Your task to perform on an android device: Show the shopping cart on walmart. Search for macbook air on walmart, select the first entry, and add it to the cart. Image 0: 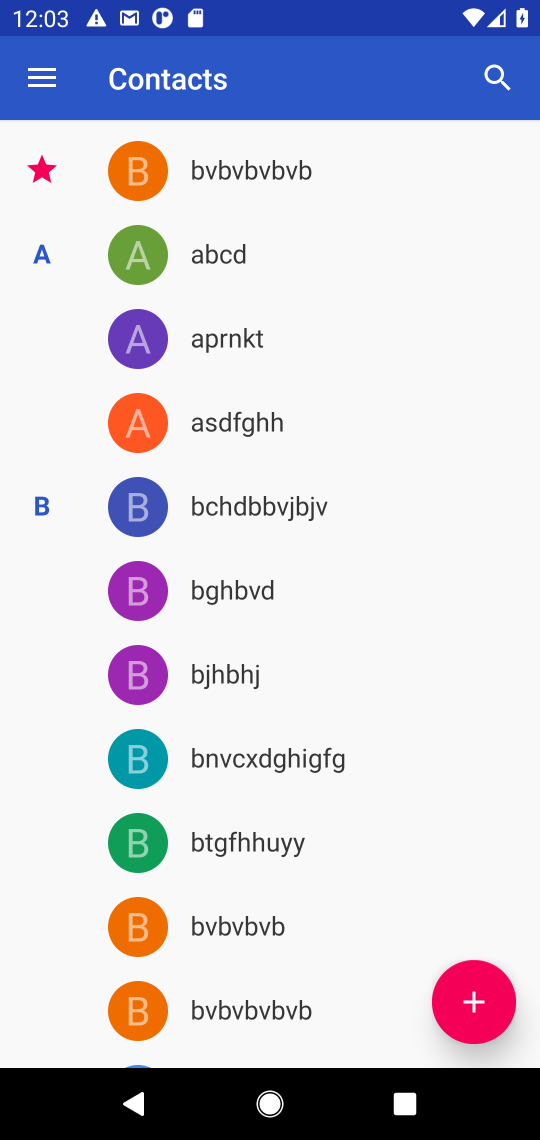
Step 0: press home button
Your task to perform on an android device: Show the shopping cart on walmart. Search for macbook air on walmart, select the first entry, and add it to the cart. Image 1: 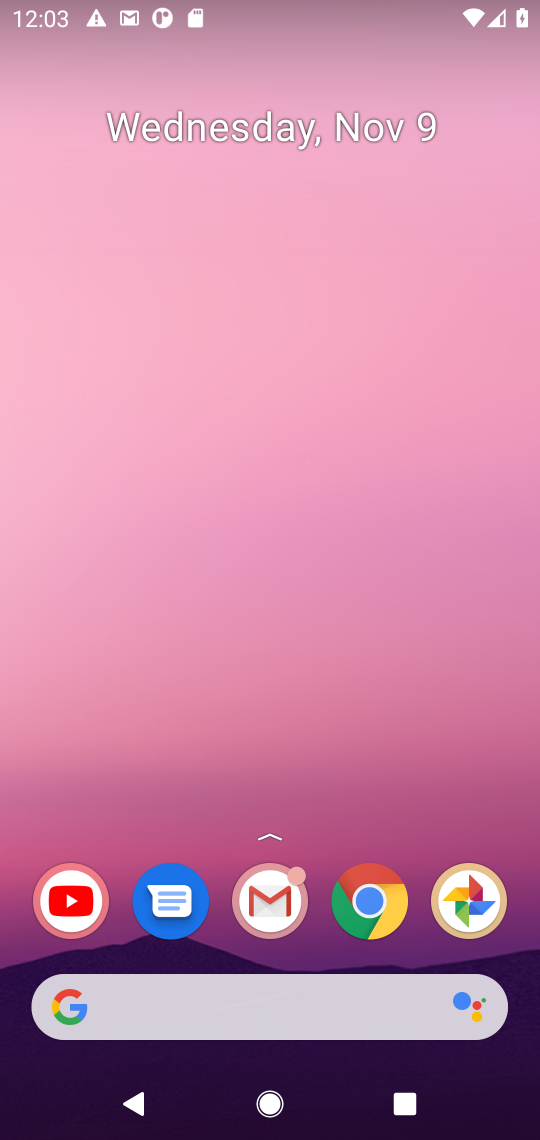
Step 1: click (376, 899)
Your task to perform on an android device: Show the shopping cart on walmart. Search for macbook air on walmart, select the first entry, and add it to the cart. Image 2: 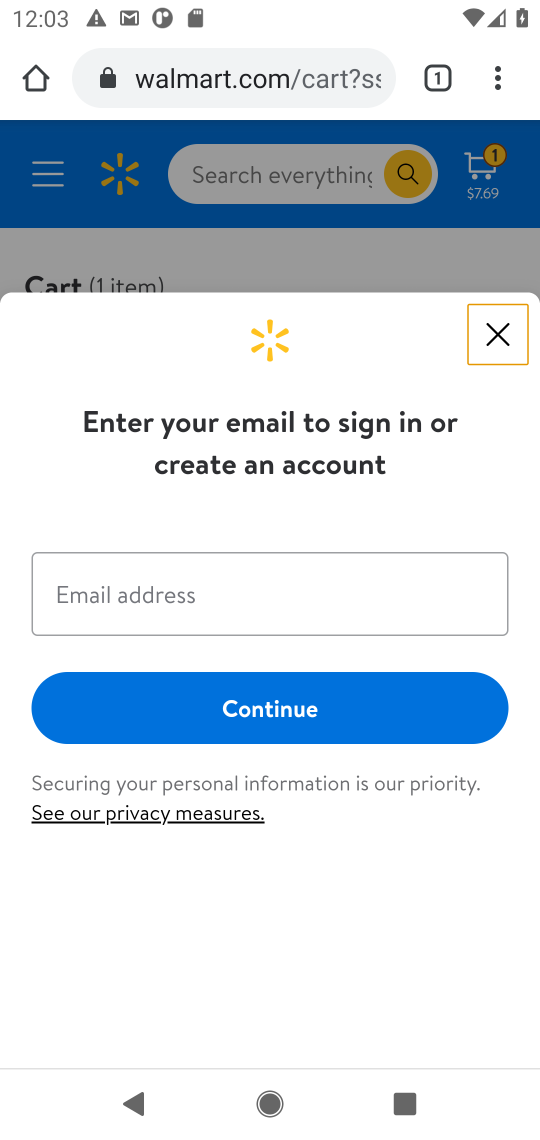
Step 2: click (491, 329)
Your task to perform on an android device: Show the shopping cart on walmart. Search for macbook air on walmart, select the first entry, and add it to the cart. Image 3: 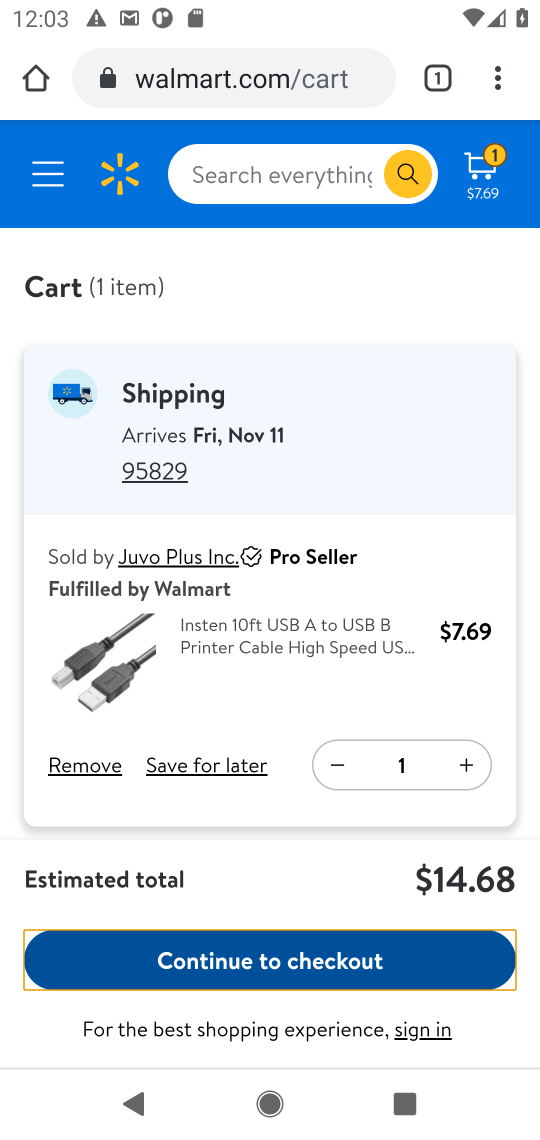
Step 3: click (480, 176)
Your task to perform on an android device: Show the shopping cart on walmart. Search for macbook air on walmart, select the first entry, and add it to the cart. Image 4: 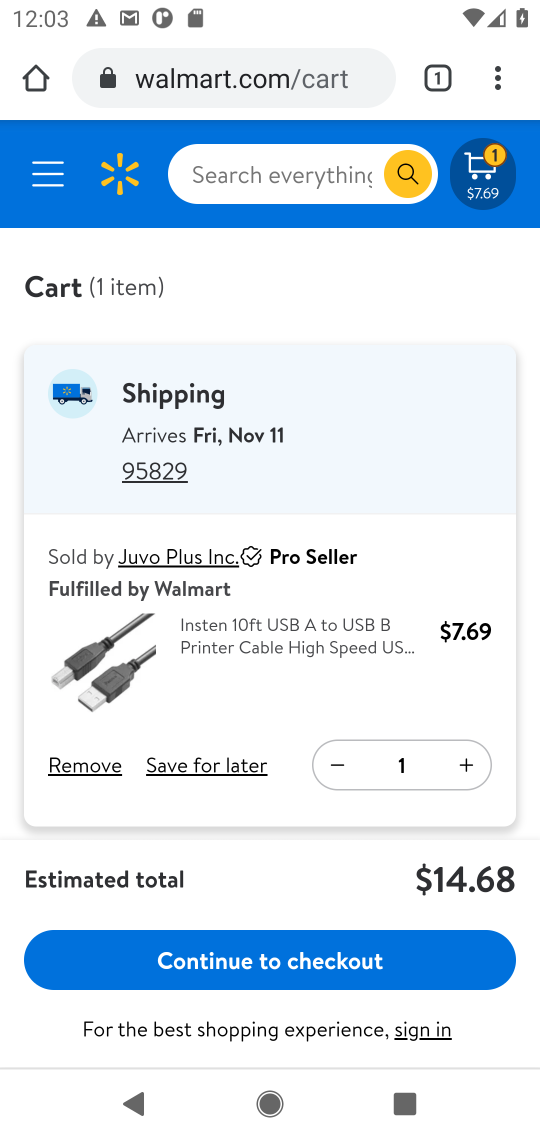
Step 4: click (271, 178)
Your task to perform on an android device: Show the shopping cart on walmart. Search for macbook air on walmart, select the first entry, and add it to the cart. Image 5: 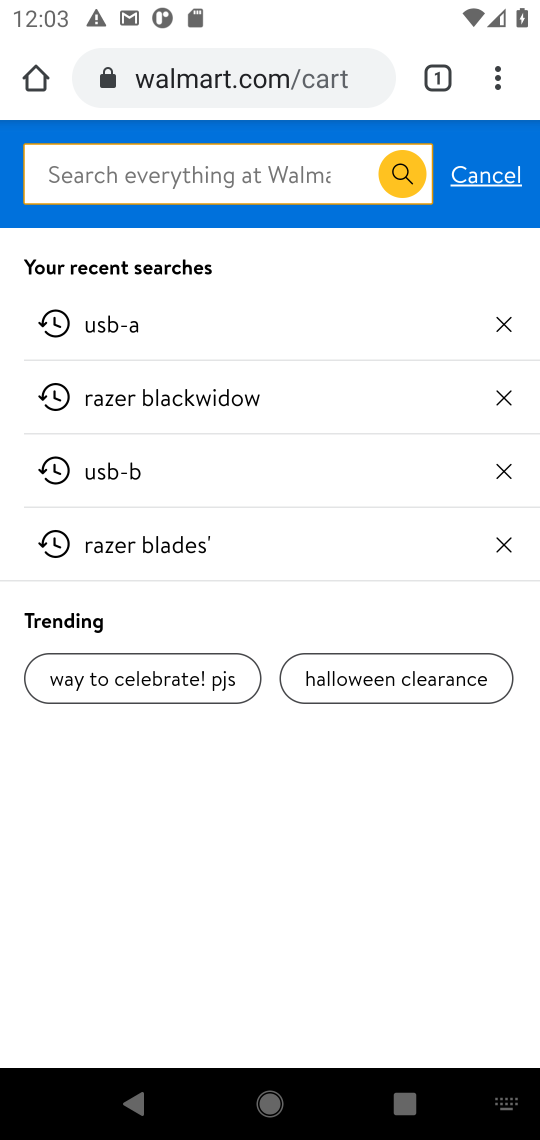
Step 5: type "macbook air"
Your task to perform on an android device: Show the shopping cart on walmart. Search for macbook air on walmart, select the first entry, and add it to the cart. Image 6: 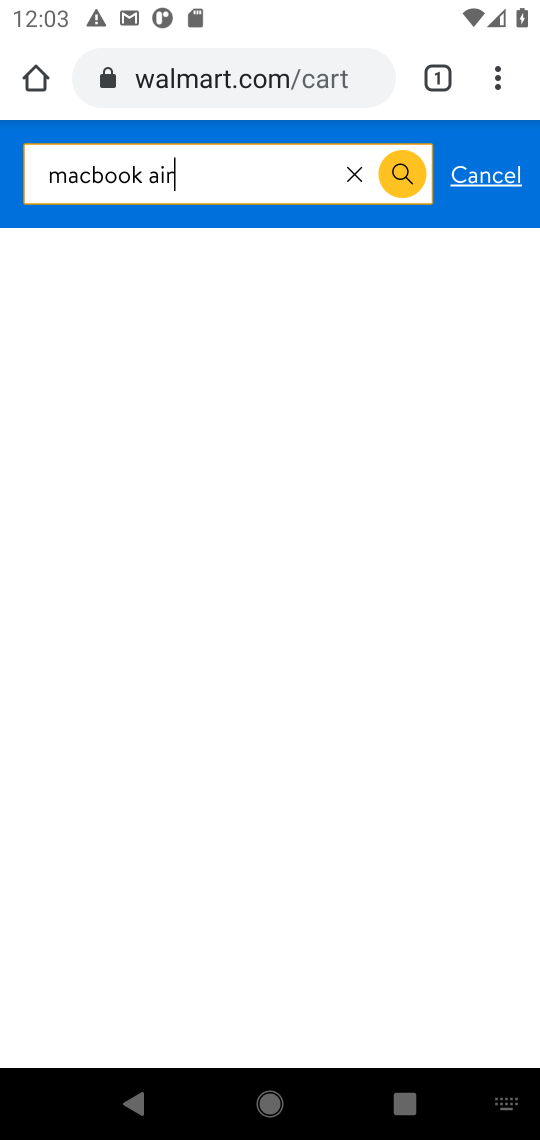
Step 6: press enter
Your task to perform on an android device: Show the shopping cart on walmart. Search for macbook air on walmart, select the first entry, and add it to the cart. Image 7: 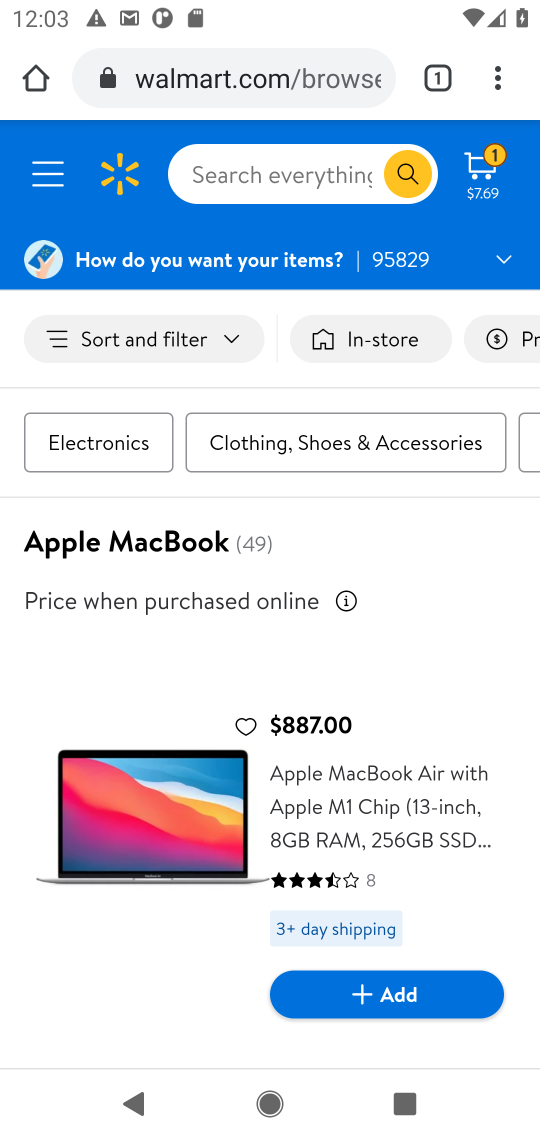
Step 7: click (209, 789)
Your task to perform on an android device: Show the shopping cart on walmart. Search for macbook air on walmart, select the first entry, and add it to the cart. Image 8: 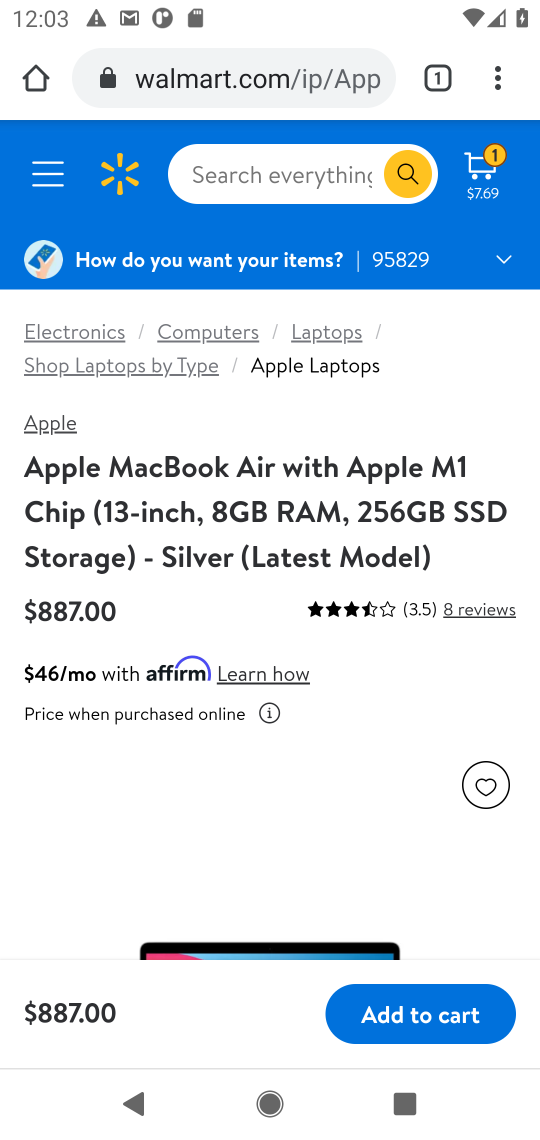
Step 8: click (441, 1008)
Your task to perform on an android device: Show the shopping cart on walmart. Search for macbook air on walmart, select the first entry, and add it to the cart. Image 9: 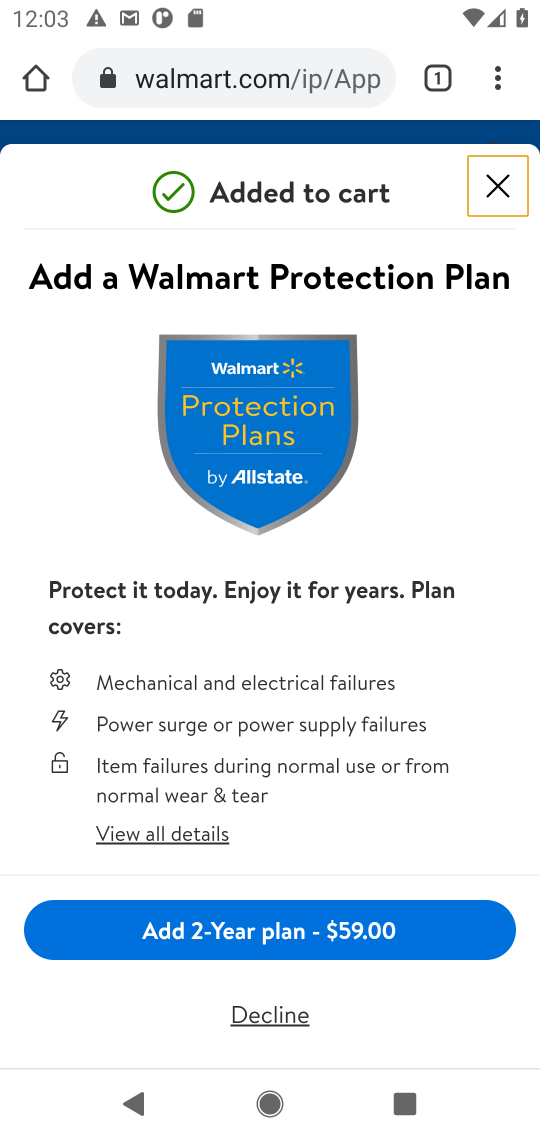
Step 9: task complete